Your task to perform on an android device: refresh tabs in the chrome app Image 0: 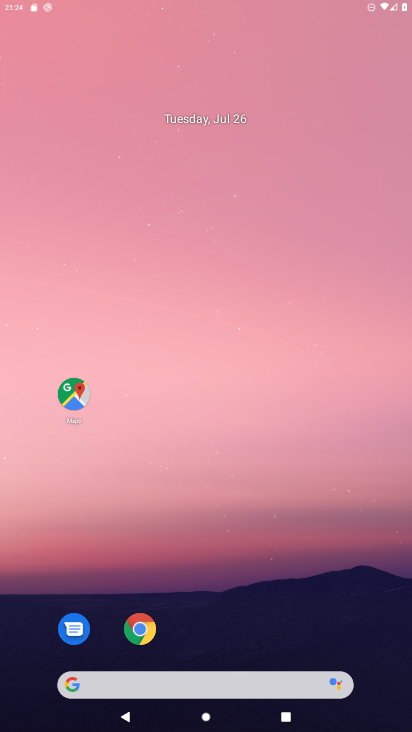
Step 0: press home button
Your task to perform on an android device: refresh tabs in the chrome app Image 1: 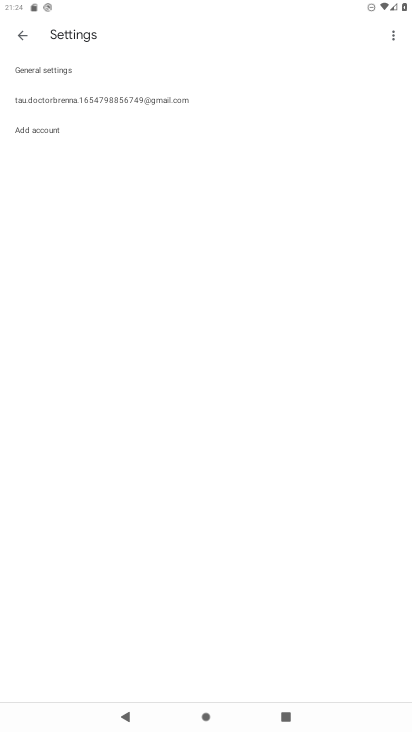
Step 1: drag from (319, 522) to (323, 121)
Your task to perform on an android device: refresh tabs in the chrome app Image 2: 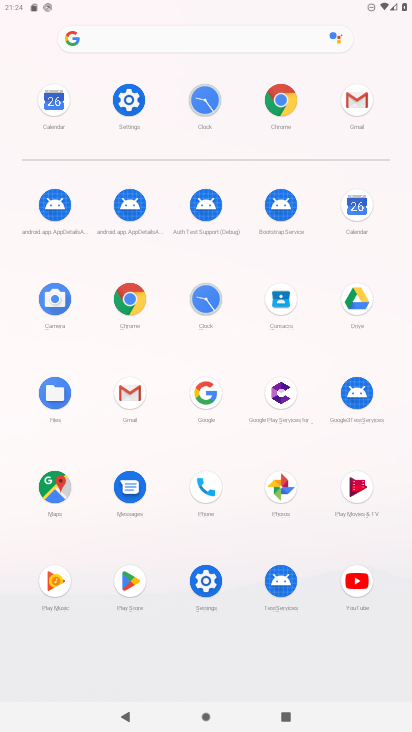
Step 2: click (285, 117)
Your task to perform on an android device: refresh tabs in the chrome app Image 3: 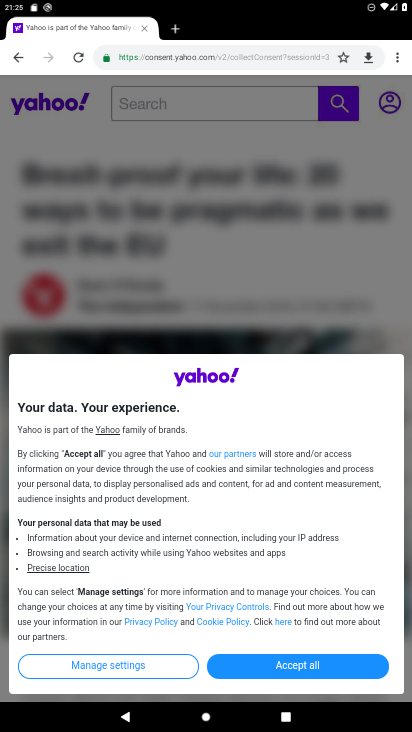
Step 3: click (78, 54)
Your task to perform on an android device: refresh tabs in the chrome app Image 4: 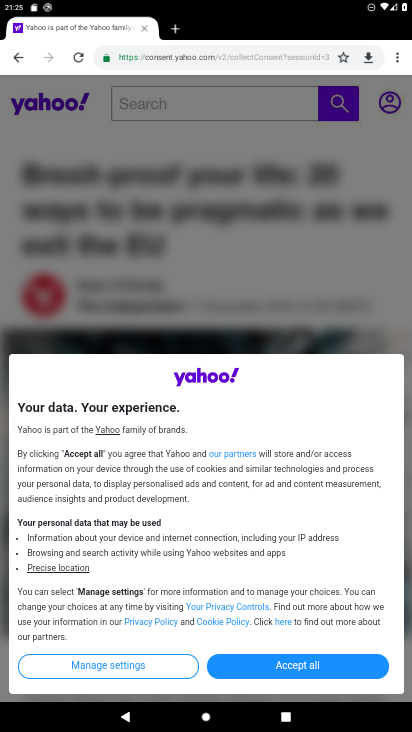
Step 4: task complete